Your task to perform on an android device: Show me recent news Image 0: 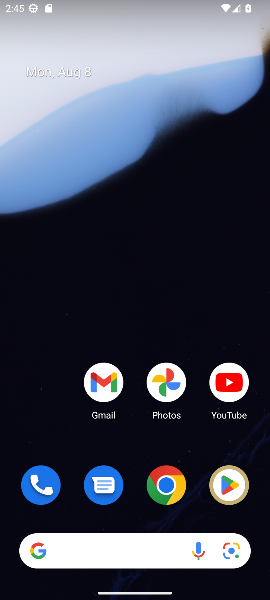
Step 0: drag from (156, 460) to (130, 213)
Your task to perform on an android device: Show me recent news Image 1: 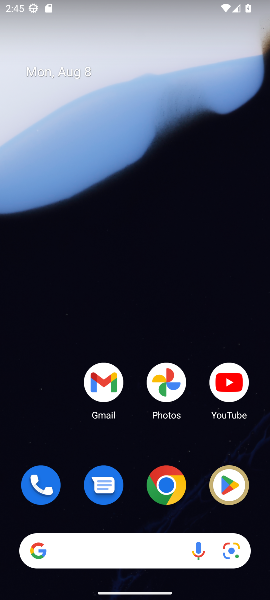
Step 1: drag from (170, 447) to (141, 166)
Your task to perform on an android device: Show me recent news Image 2: 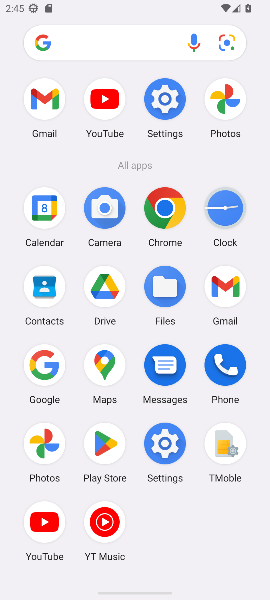
Step 2: drag from (177, 473) to (128, 114)
Your task to perform on an android device: Show me recent news Image 3: 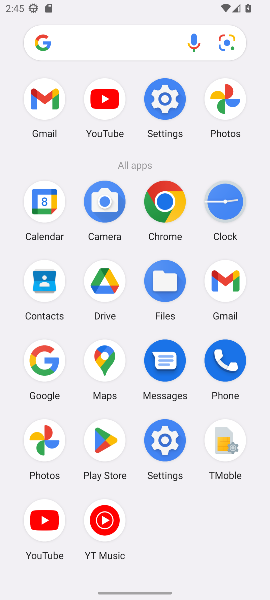
Step 3: click (106, 72)
Your task to perform on an android device: Show me recent news Image 4: 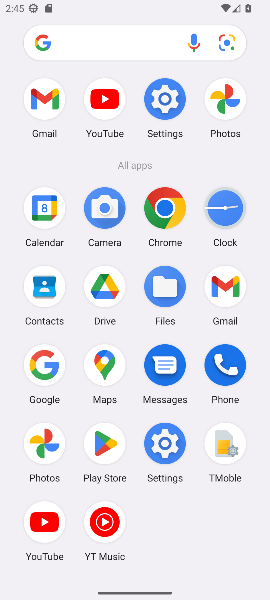
Step 4: click (164, 93)
Your task to perform on an android device: Show me recent news Image 5: 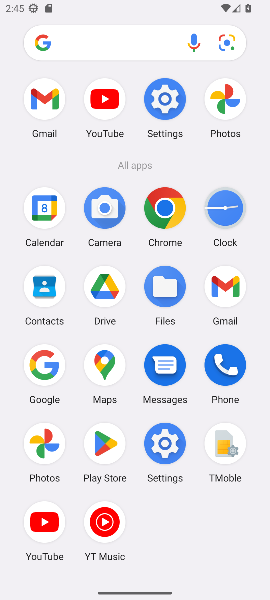
Step 5: click (162, 99)
Your task to perform on an android device: Show me recent news Image 6: 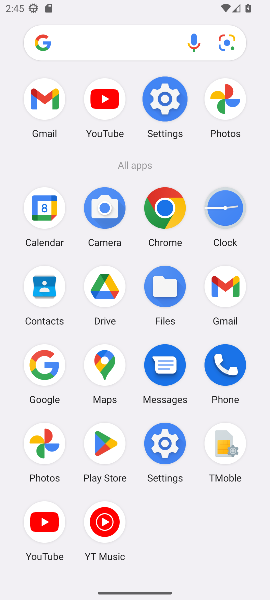
Step 6: click (162, 99)
Your task to perform on an android device: Show me recent news Image 7: 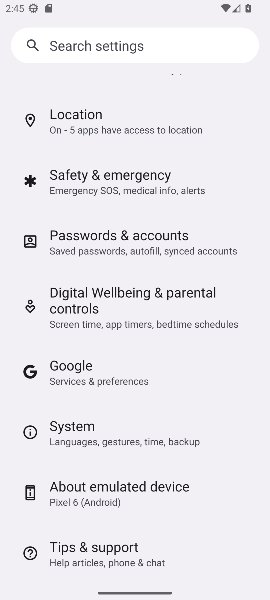
Step 7: click (162, 106)
Your task to perform on an android device: Show me recent news Image 8: 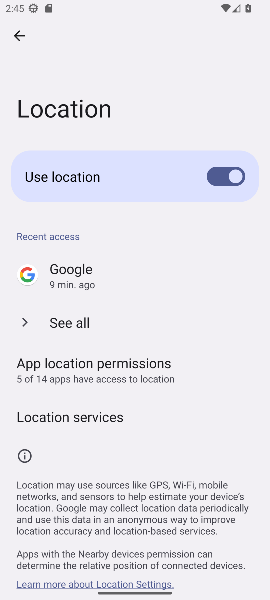
Step 8: press back button
Your task to perform on an android device: Show me recent news Image 9: 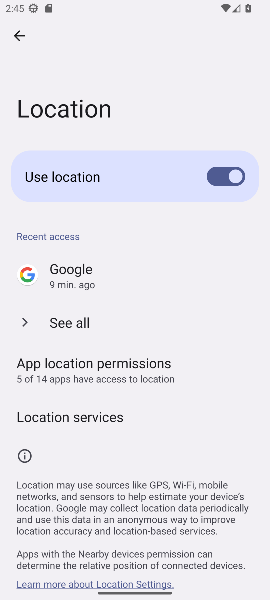
Step 9: press back button
Your task to perform on an android device: Show me recent news Image 10: 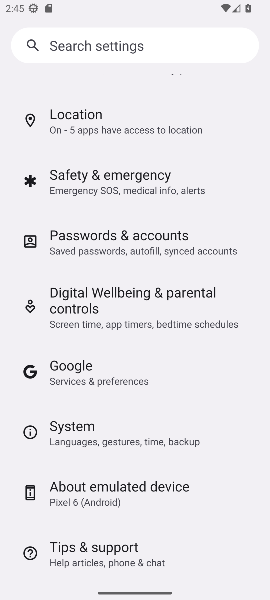
Step 10: press back button
Your task to perform on an android device: Show me recent news Image 11: 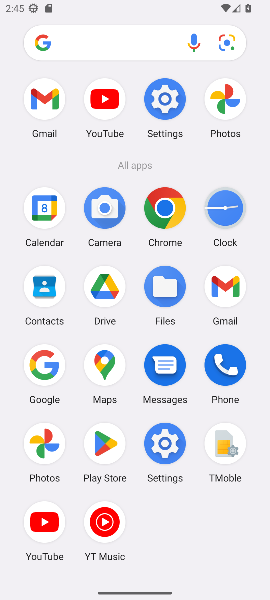
Step 11: click (161, 216)
Your task to perform on an android device: Show me recent news Image 12: 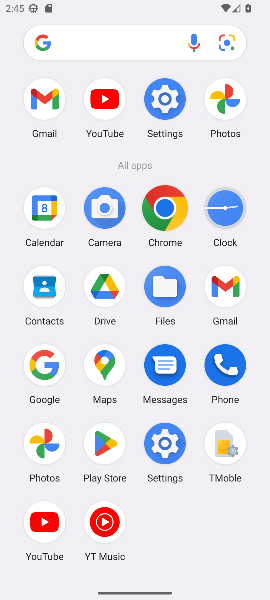
Step 12: click (161, 216)
Your task to perform on an android device: Show me recent news Image 13: 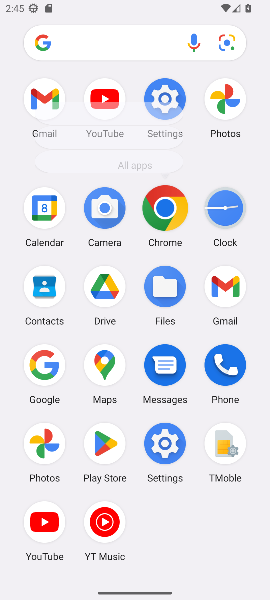
Step 13: click (161, 216)
Your task to perform on an android device: Show me recent news Image 14: 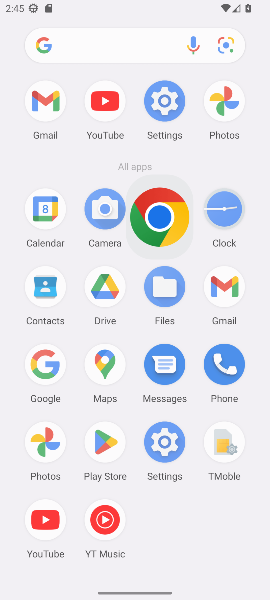
Step 14: click (161, 216)
Your task to perform on an android device: Show me recent news Image 15: 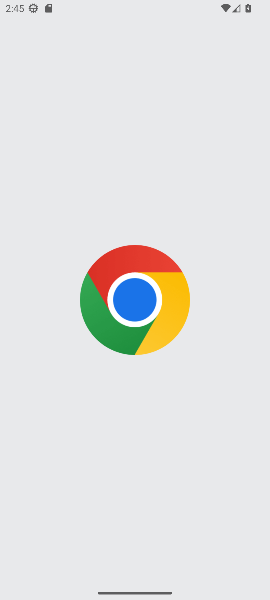
Step 15: click (161, 217)
Your task to perform on an android device: Show me recent news Image 16: 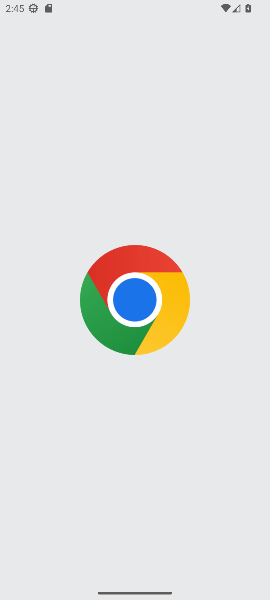
Step 16: click (164, 216)
Your task to perform on an android device: Show me recent news Image 17: 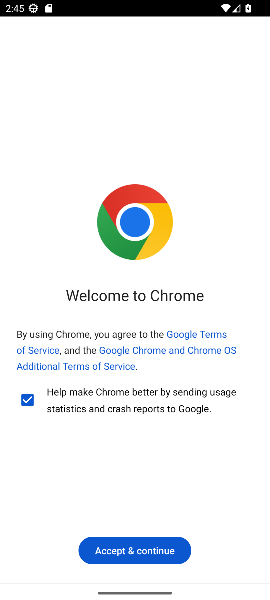
Step 17: click (150, 547)
Your task to perform on an android device: Show me recent news Image 18: 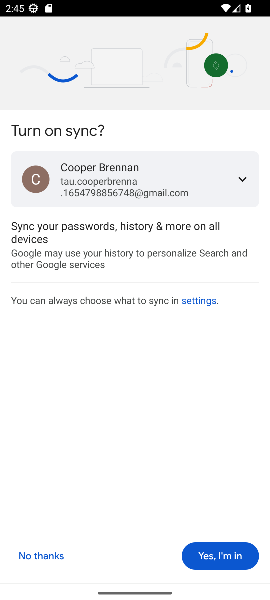
Step 18: click (23, 548)
Your task to perform on an android device: Show me recent news Image 19: 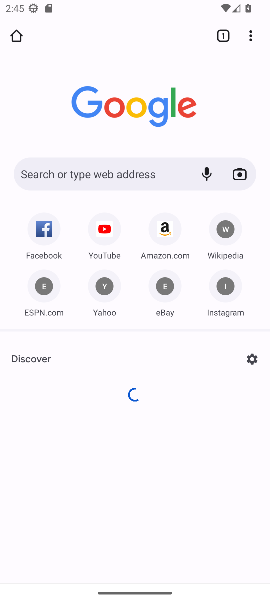
Step 19: click (117, 34)
Your task to perform on an android device: Show me recent news Image 20: 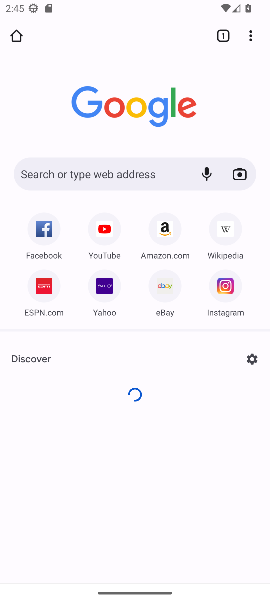
Step 20: drag from (152, 354) to (144, 76)
Your task to perform on an android device: Show me recent news Image 21: 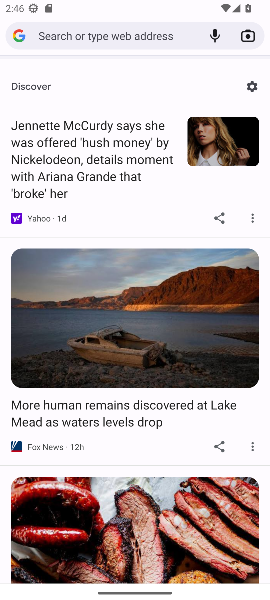
Step 21: click (161, 218)
Your task to perform on an android device: Show me recent news Image 22: 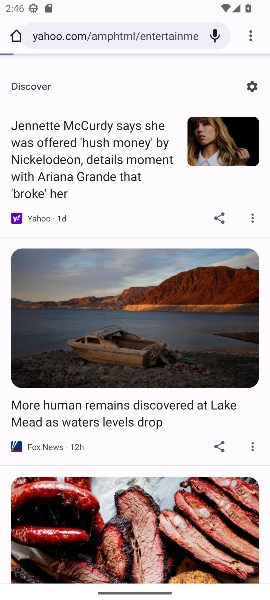
Step 22: click (202, 238)
Your task to perform on an android device: Show me recent news Image 23: 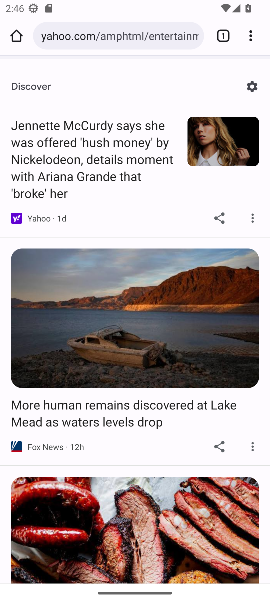
Step 23: task complete